Your task to perform on an android device: Go to wifi settings Image 0: 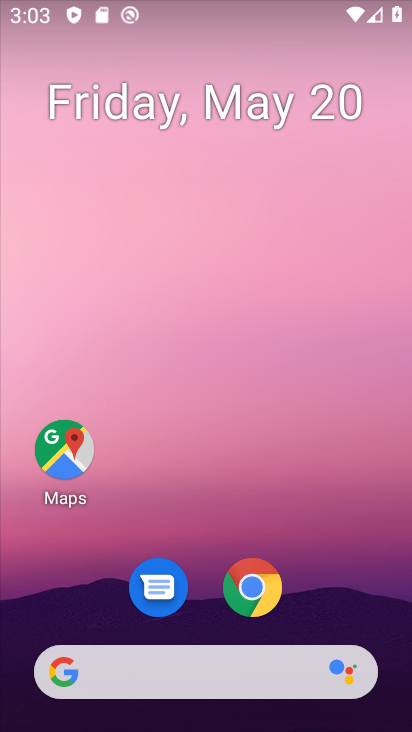
Step 0: drag from (373, 5) to (231, 716)
Your task to perform on an android device: Go to wifi settings Image 1: 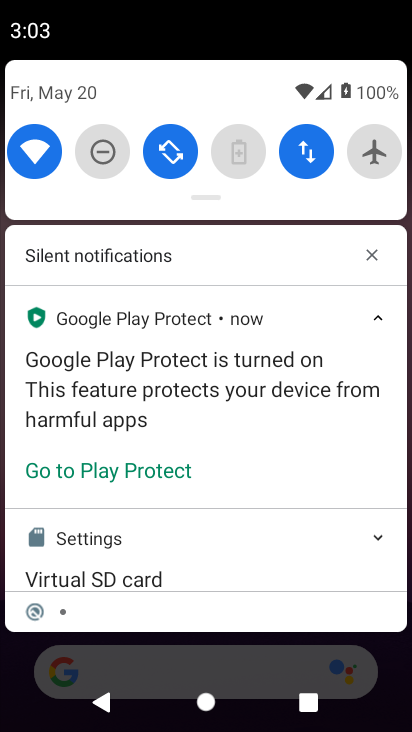
Step 1: click (35, 168)
Your task to perform on an android device: Go to wifi settings Image 2: 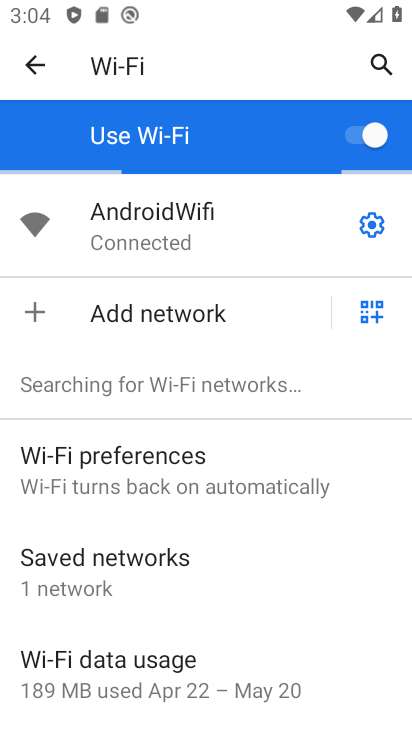
Step 2: task complete